Your task to perform on an android device: open app "Indeed Job Search" (install if not already installed) Image 0: 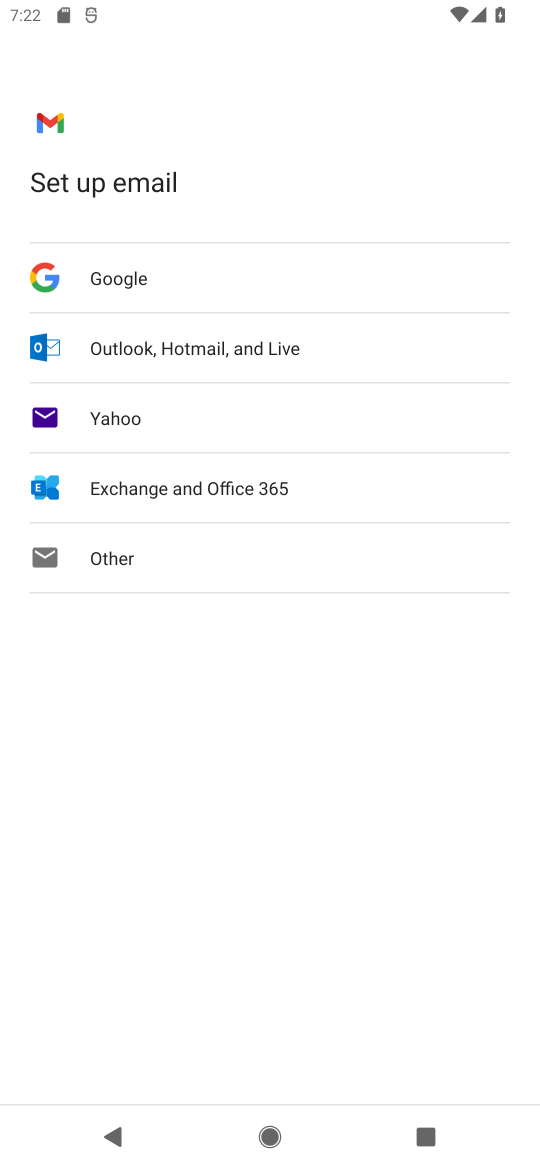
Step 0: press home button
Your task to perform on an android device: open app "Indeed Job Search" (install if not already installed) Image 1: 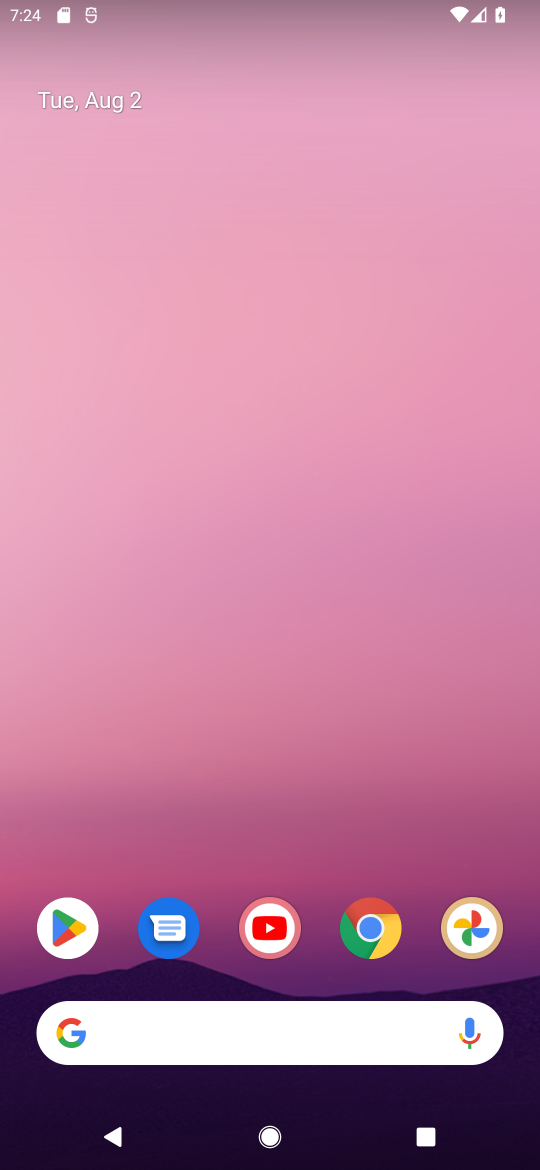
Step 1: click (84, 950)
Your task to perform on an android device: open app "Indeed Job Search" (install if not already installed) Image 2: 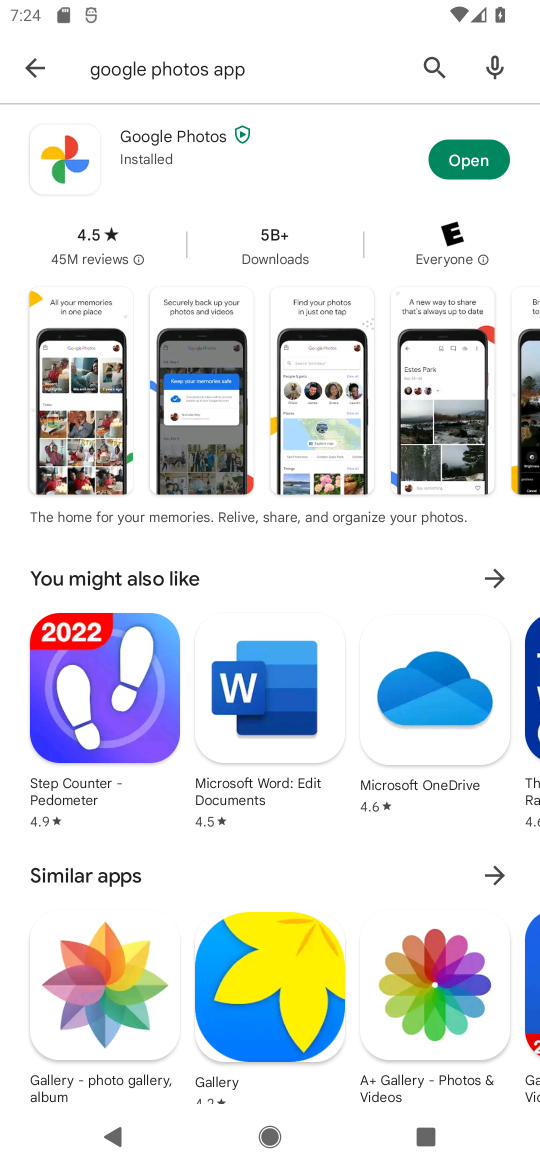
Step 2: click (404, 76)
Your task to perform on an android device: open app "Indeed Job Search" (install if not already installed) Image 3: 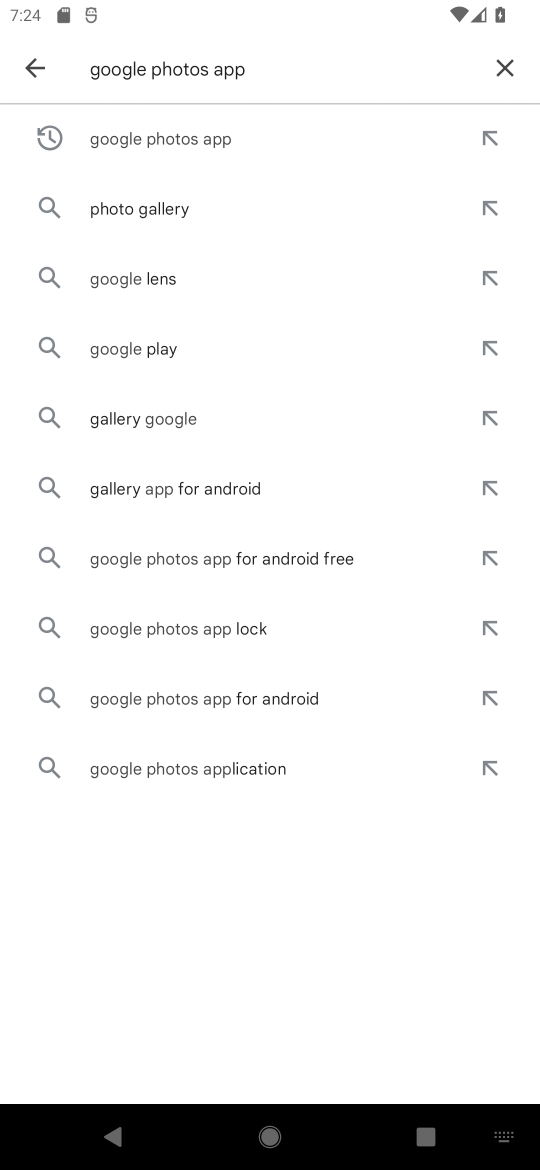
Step 3: click (497, 70)
Your task to perform on an android device: open app "Indeed Job Search" (install if not already installed) Image 4: 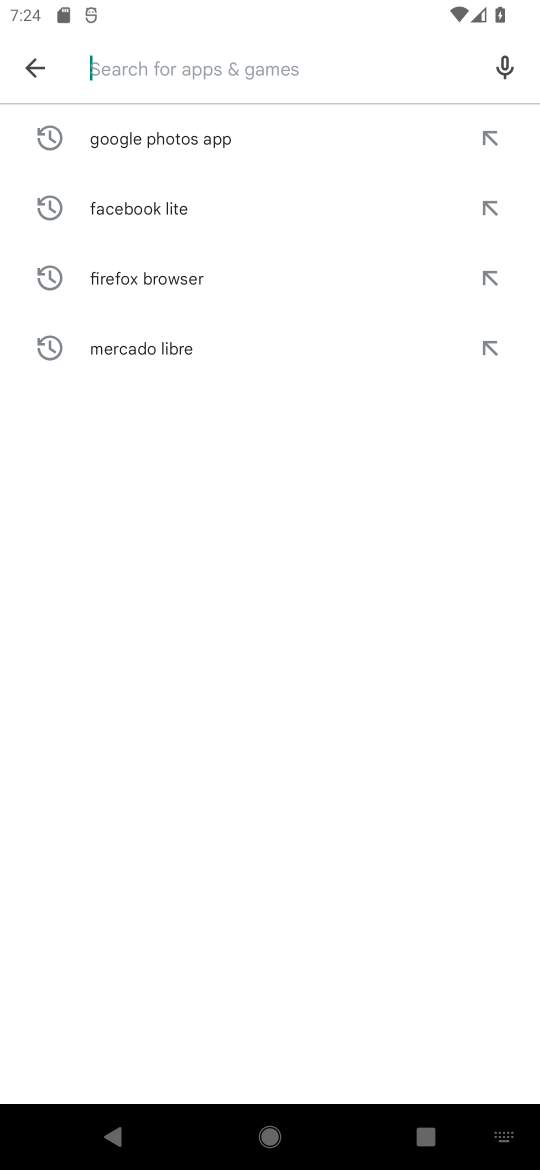
Step 4: type "indeed "
Your task to perform on an android device: open app "Indeed Job Search" (install if not already installed) Image 5: 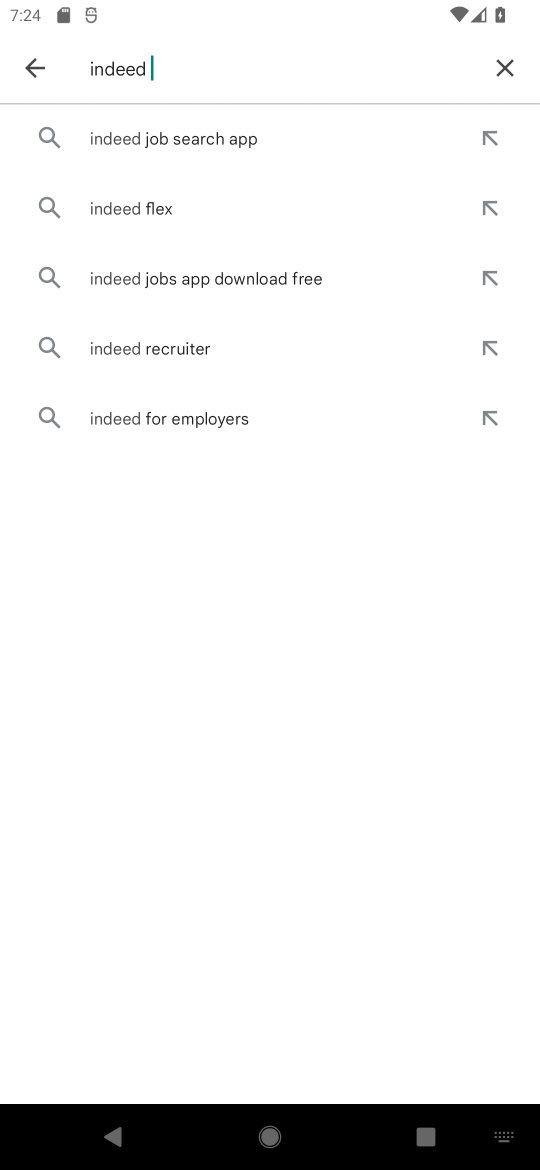
Step 5: click (318, 135)
Your task to perform on an android device: open app "Indeed Job Search" (install if not already installed) Image 6: 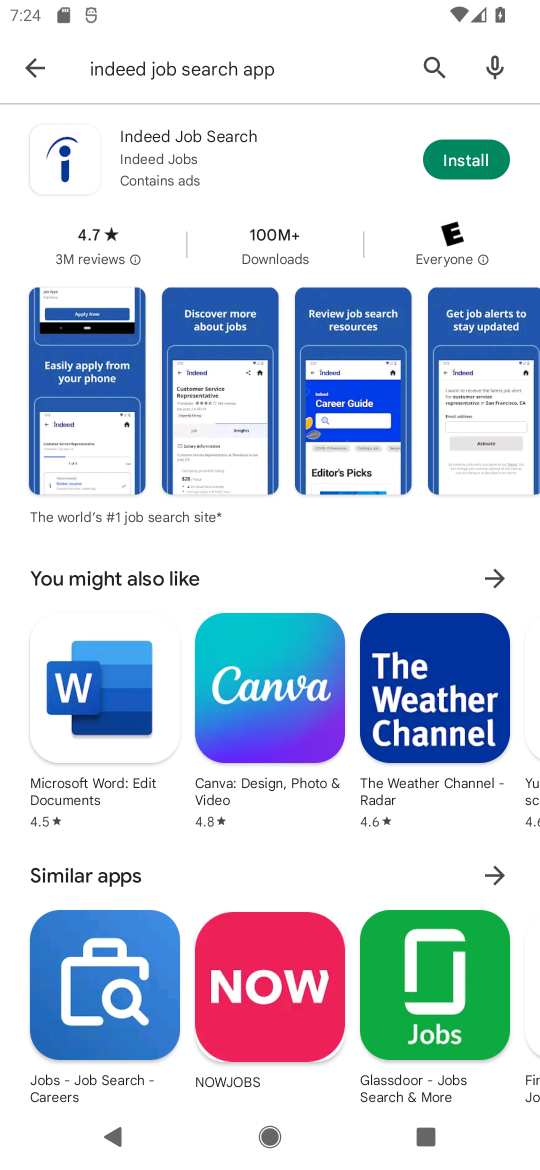
Step 6: click (471, 172)
Your task to perform on an android device: open app "Indeed Job Search" (install if not already installed) Image 7: 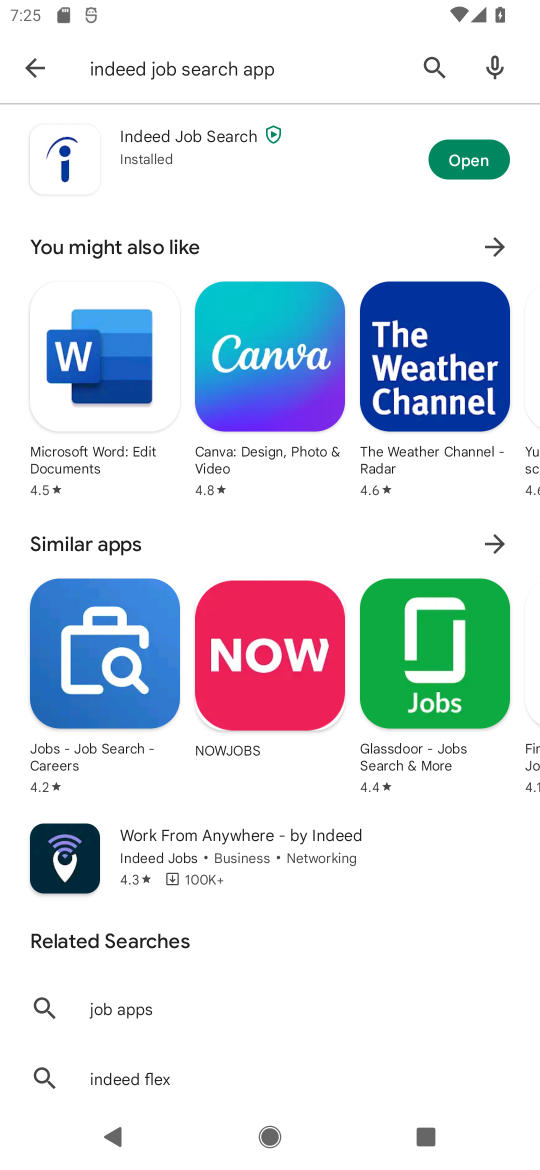
Step 7: click (481, 167)
Your task to perform on an android device: open app "Indeed Job Search" (install if not already installed) Image 8: 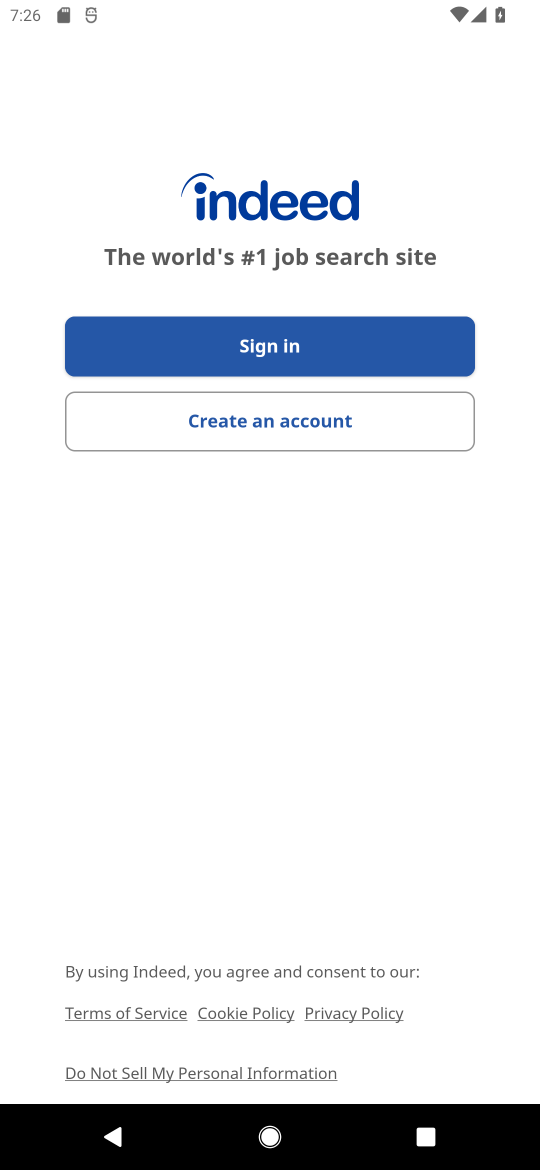
Step 8: task complete